Your task to perform on an android device: set the stopwatch Image 0: 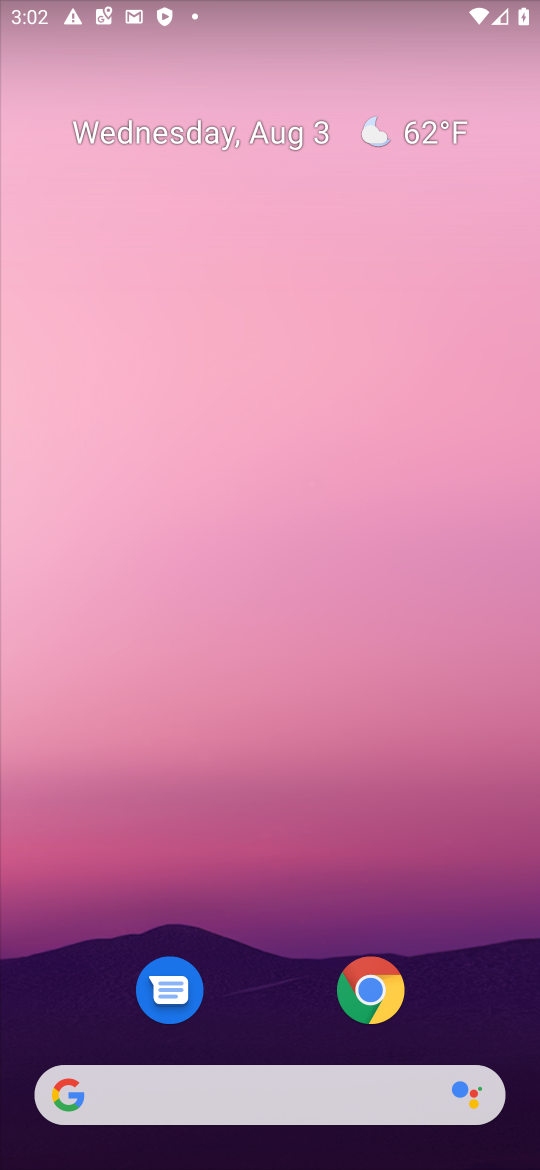
Step 0: press back button
Your task to perform on an android device: set the stopwatch Image 1: 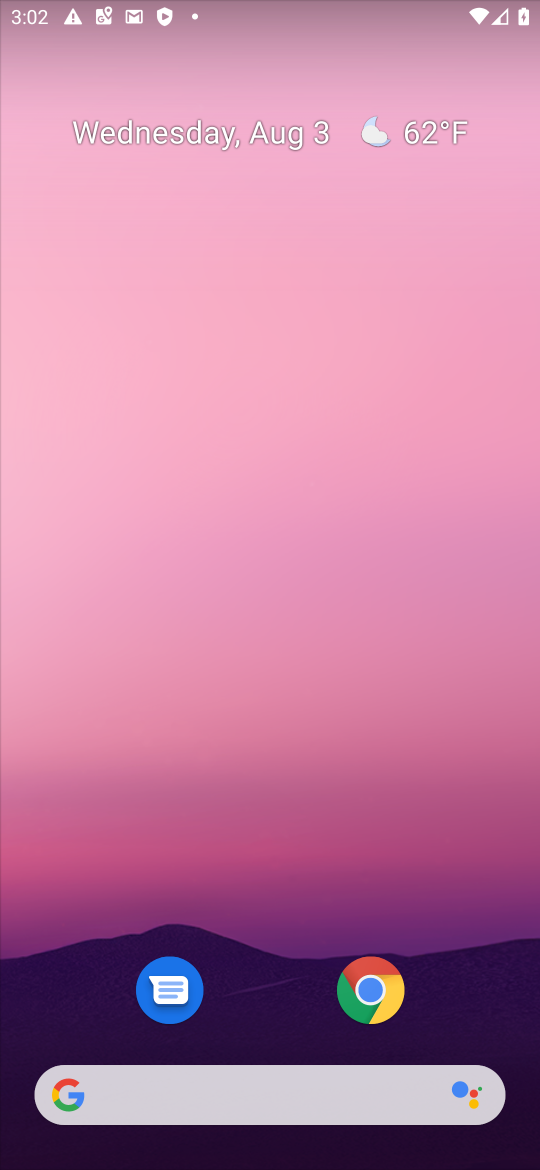
Step 1: drag from (241, 1056) to (241, 373)
Your task to perform on an android device: set the stopwatch Image 2: 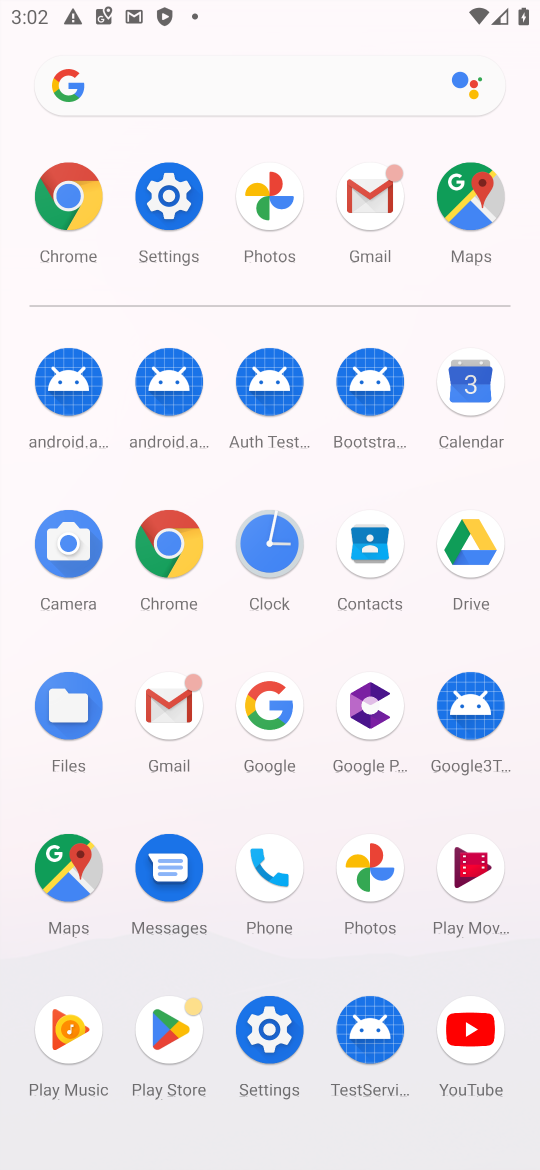
Step 2: click (267, 560)
Your task to perform on an android device: set the stopwatch Image 3: 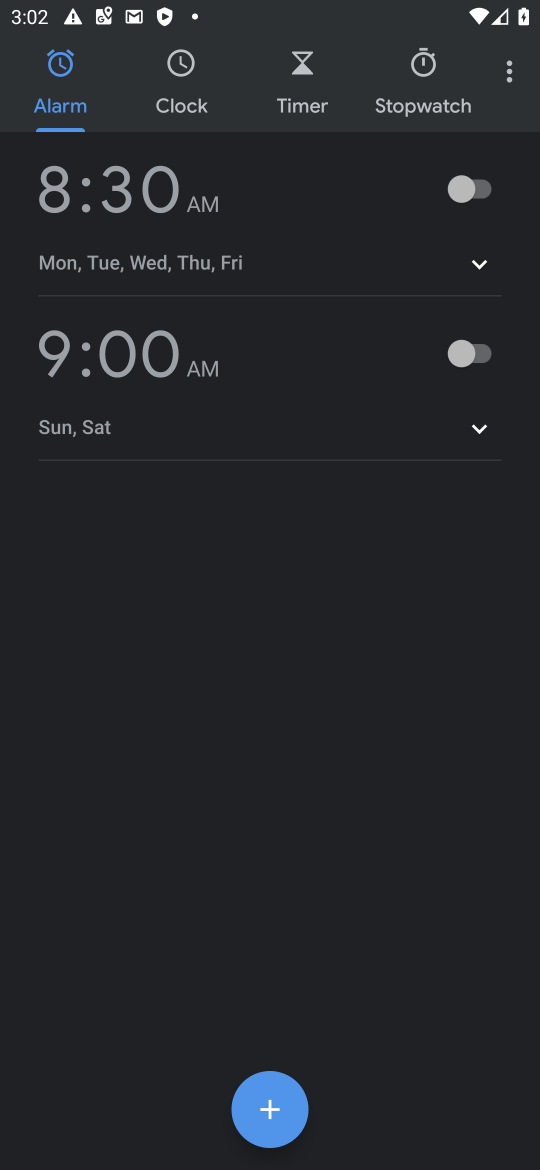
Step 3: click (445, 85)
Your task to perform on an android device: set the stopwatch Image 4: 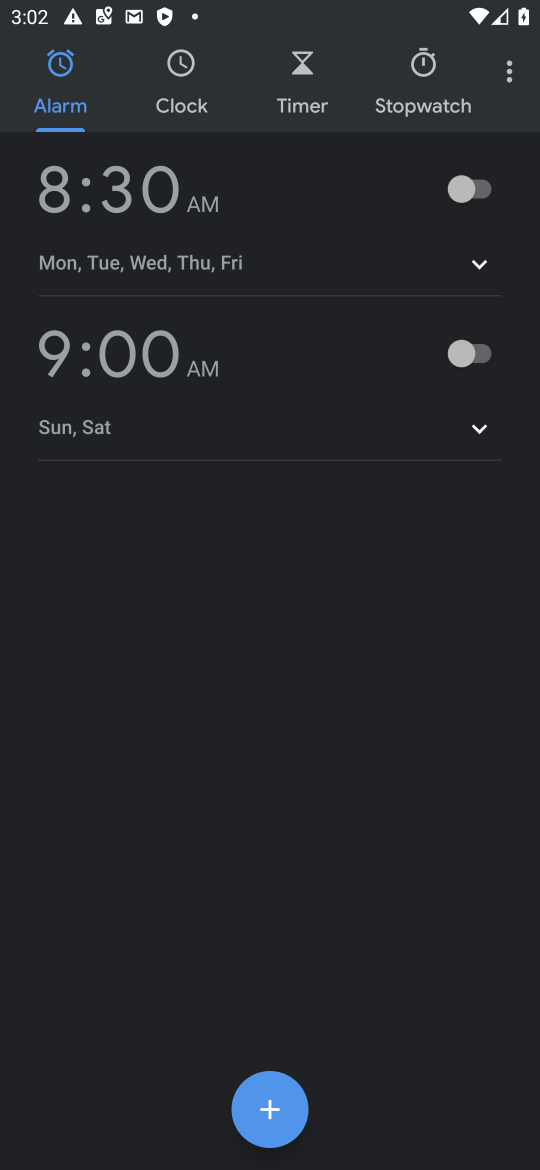
Step 4: click (429, 79)
Your task to perform on an android device: set the stopwatch Image 5: 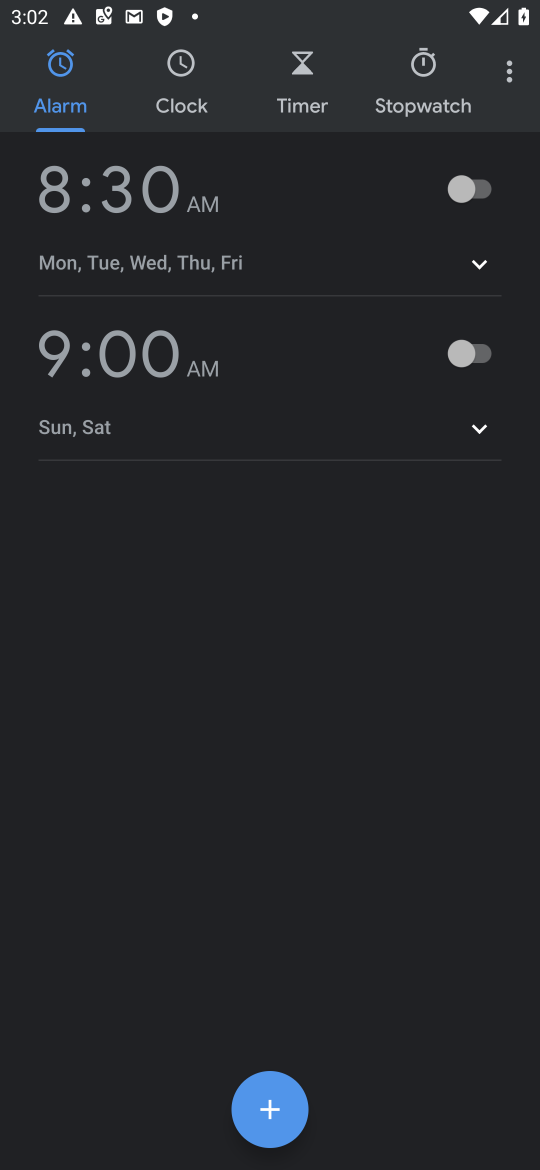
Step 5: click (417, 95)
Your task to perform on an android device: set the stopwatch Image 6: 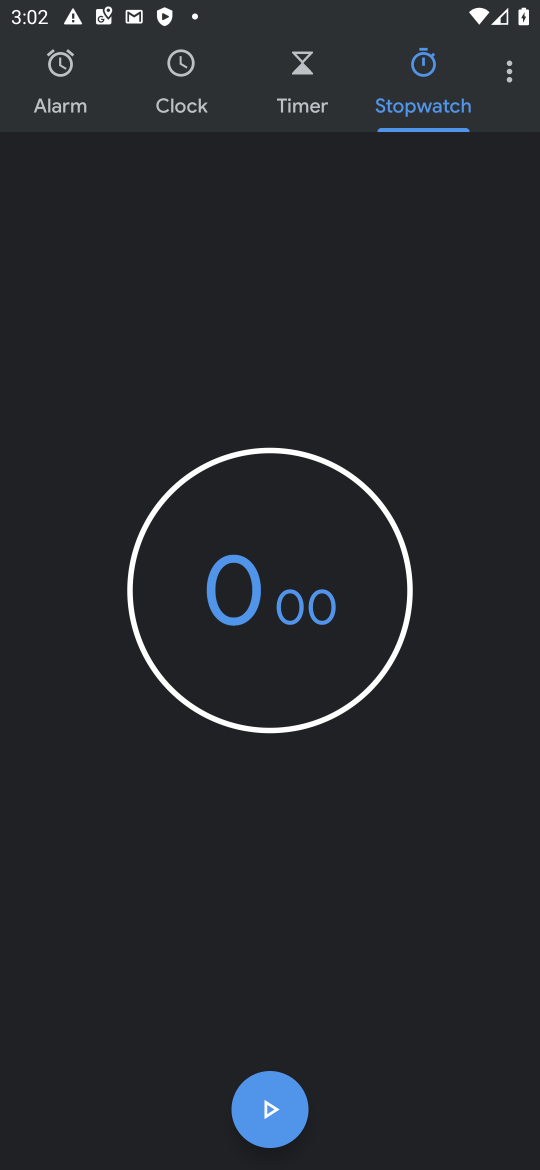
Step 6: click (267, 1113)
Your task to perform on an android device: set the stopwatch Image 7: 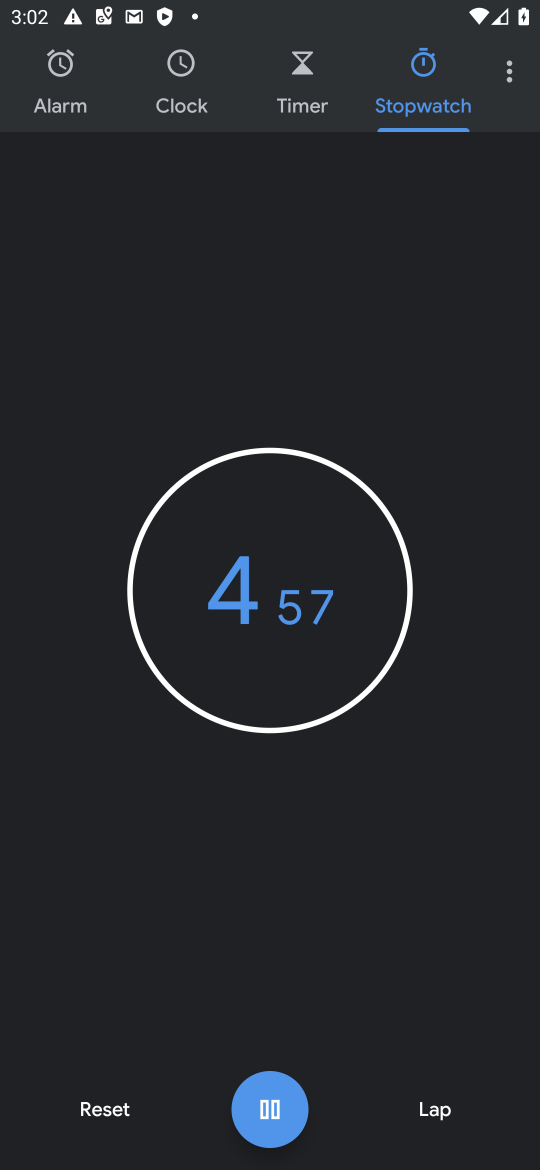
Step 7: click (264, 1112)
Your task to perform on an android device: set the stopwatch Image 8: 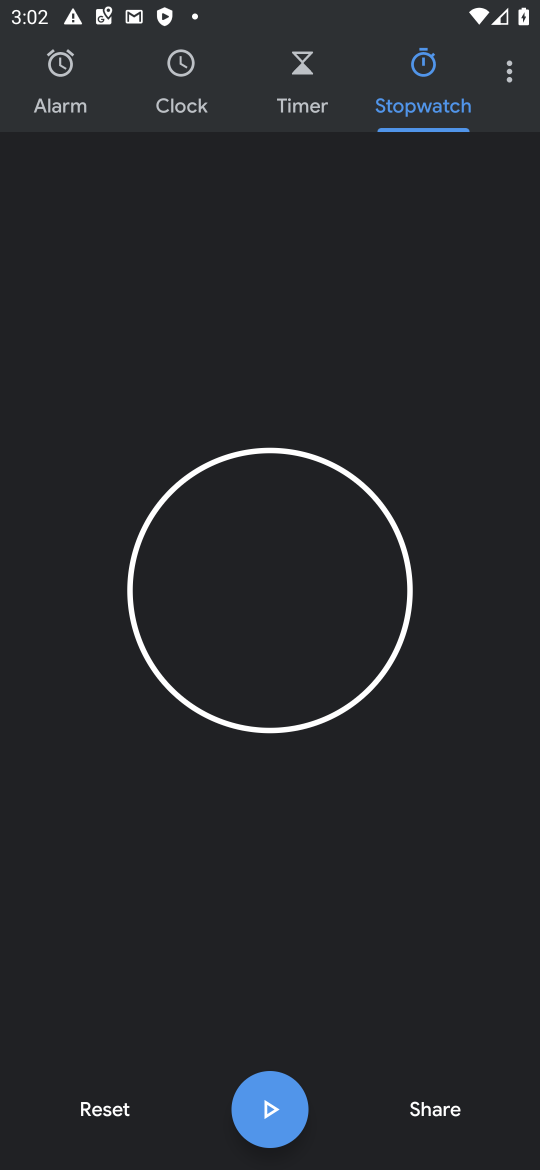
Step 8: task complete